Your task to perform on an android device: change the clock style Image 0: 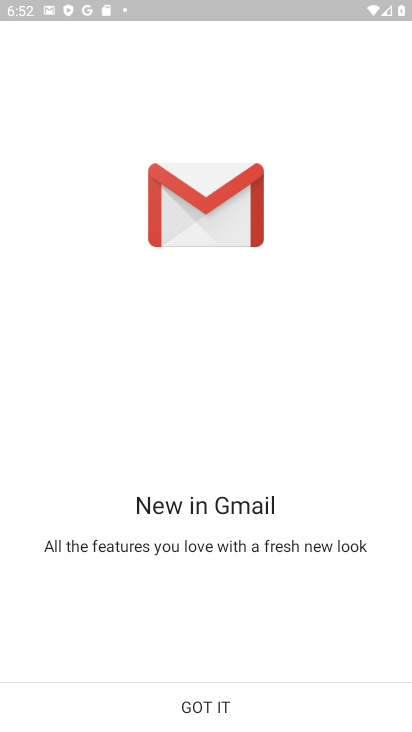
Step 0: press home button
Your task to perform on an android device: change the clock style Image 1: 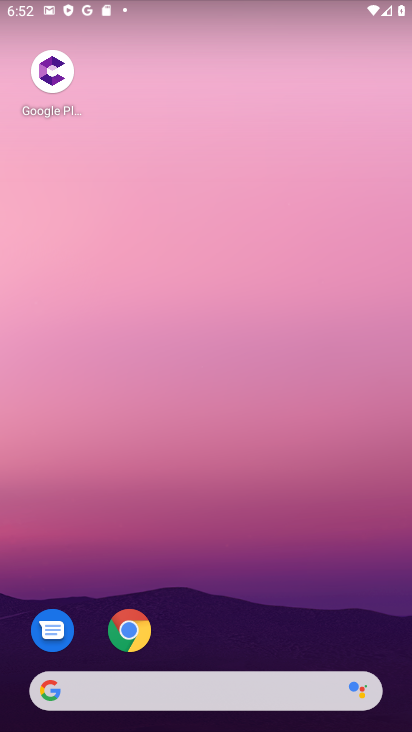
Step 1: drag from (256, 626) to (325, 126)
Your task to perform on an android device: change the clock style Image 2: 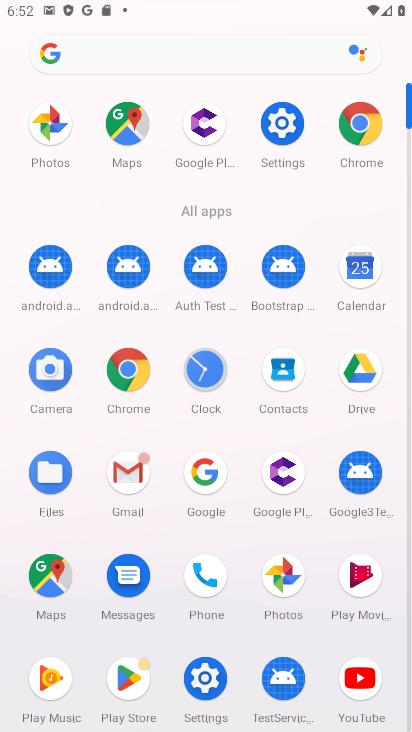
Step 2: click (216, 376)
Your task to perform on an android device: change the clock style Image 3: 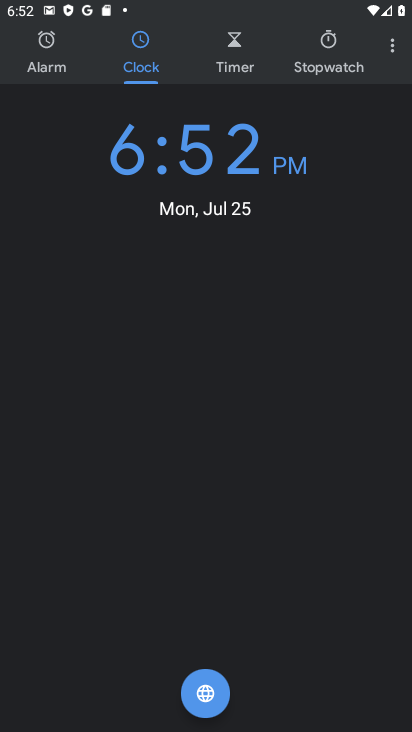
Step 3: click (52, 59)
Your task to perform on an android device: change the clock style Image 4: 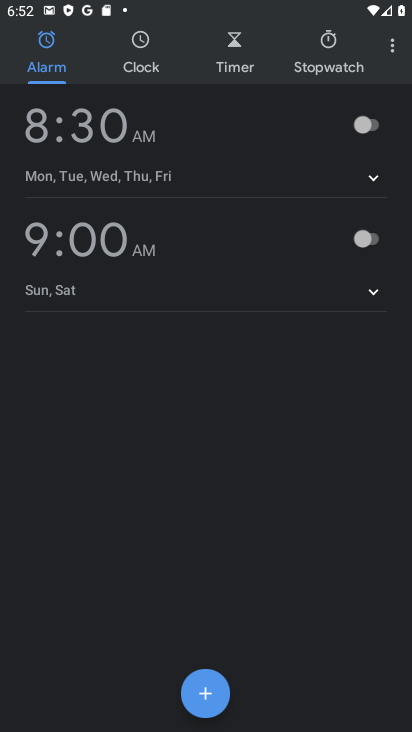
Step 4: click (384, 60)
Your task to perform on an android device: change the clock style Image 5: 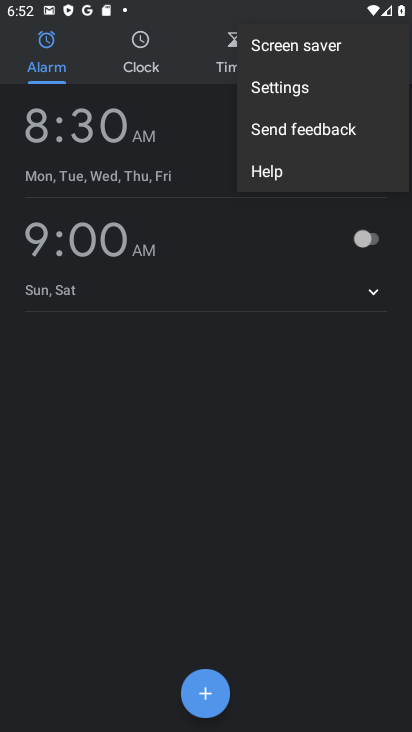
Step 5: click (295, 86)
Your task to perform on an android device: change the clock style Image 6: 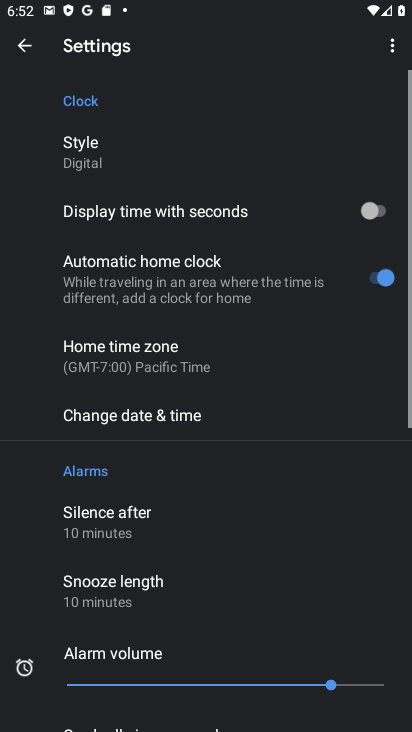
Step 6: click (149, 161)
Your task to perform on an android device: change the clock style Image 7: 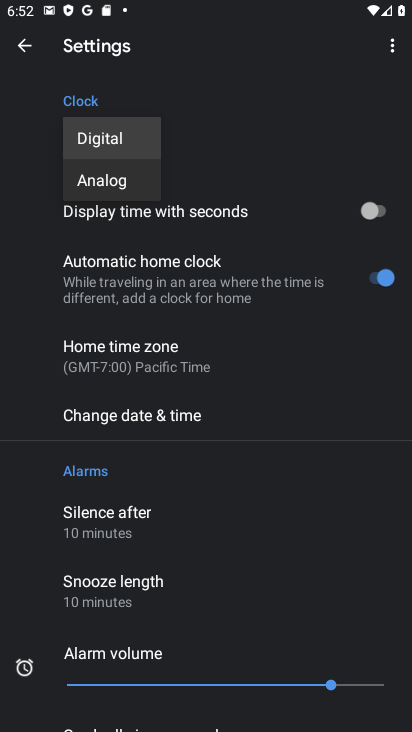
Step 7: click (120, 147)
Your task to perform on an android device: change the clock style Image 8: 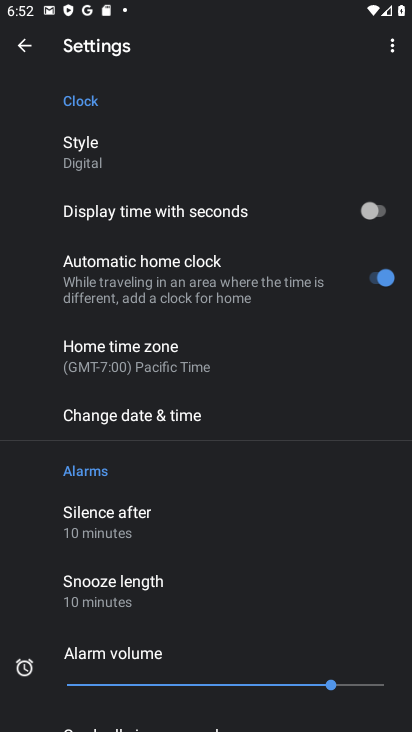
Step 8: task complete